Your task to perform on an android device: Turn off the flashlight Image 0: 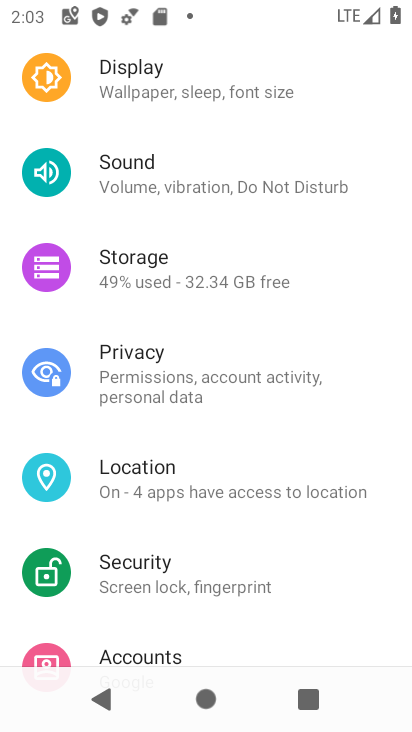
Step 0: press home button
Your task to perform on an android device: Turn off the flashlight Image 1: 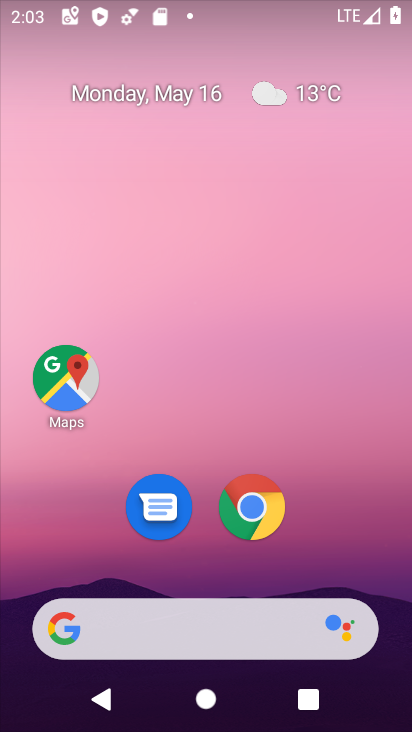
Step 1: task complete